Your task to perform on an android device: open a new tab in the chrome app Image 0: 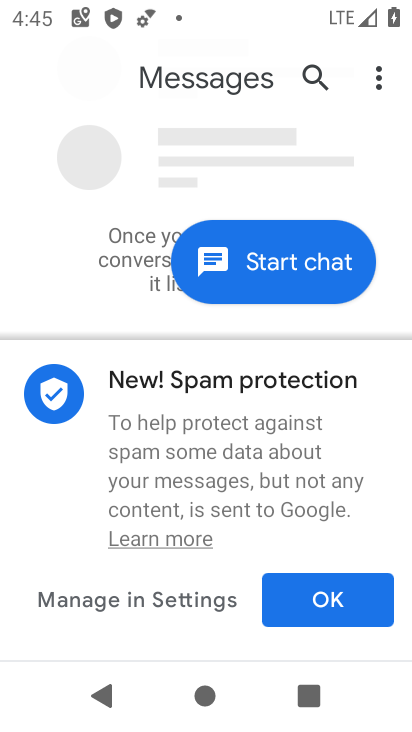
Step 0: press home button
Your task to perform on an android device: open a new tab in the chrome app Image 1: 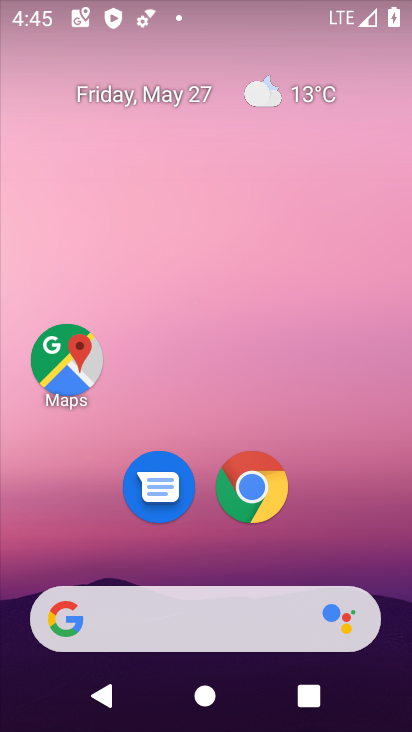
Step 1: click (252, 482)
Your task to perform on an android device: open a new tab in the chrome app Image 2: 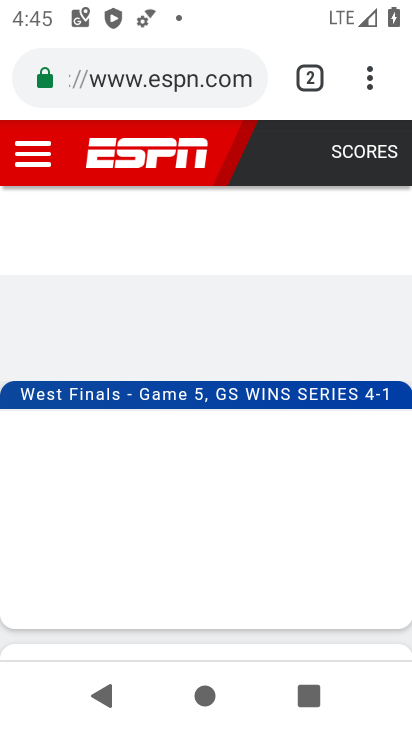
Step 2: task complete